Your task to perform on an android device: Open maps Image 0: 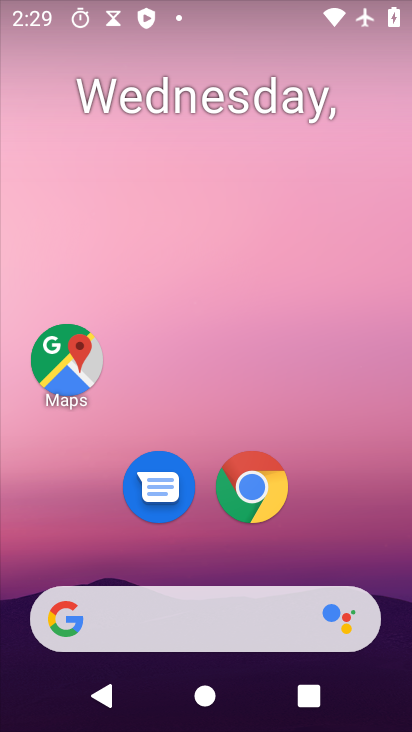
Step 0: drag from (297, 512) to (272, 275)
Your task to perform on an android device: Open maps Image 1: 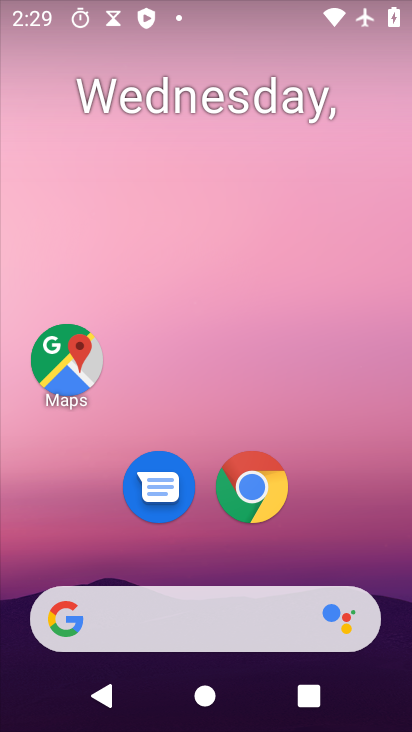
Step 1: drag from (280, 710) to (211, 226)
Your task to perform on an android device: Open maps Image 2: 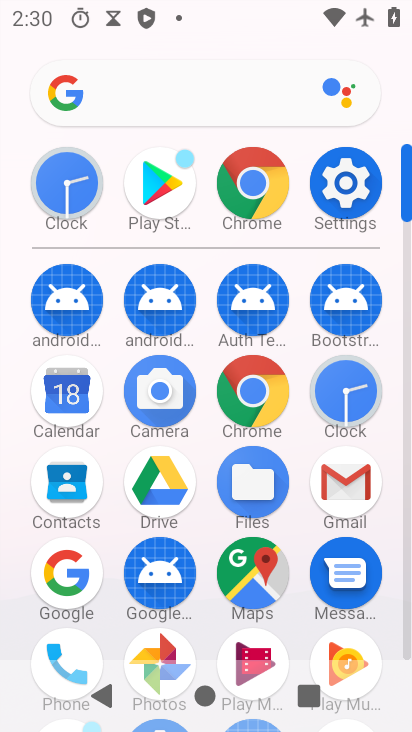
Step 2: click (253, 572)
Your task to perform on an android device: Open maps Image 3: 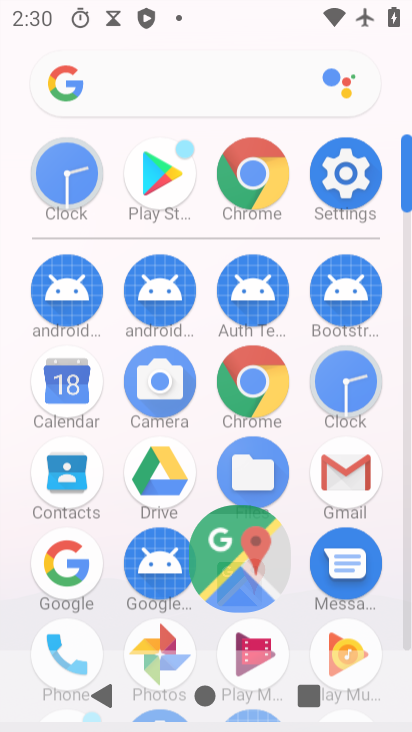
Step 3: click (253, 572)
Your task to perform on an android device: Open maps Image 4: 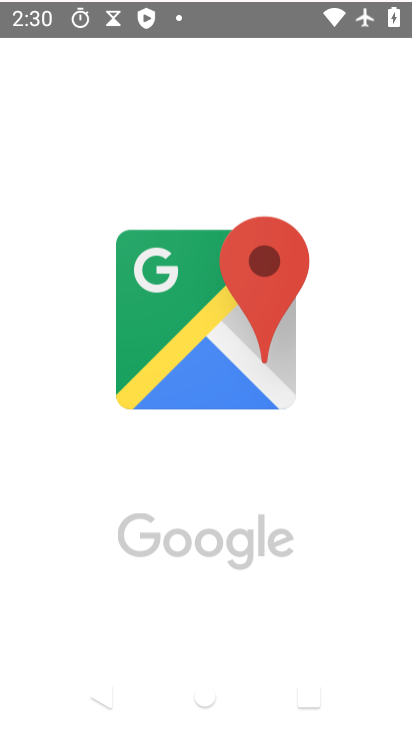
Step 4: click (253, 572)
Your task to perform on an android device: Open maps Image 5: 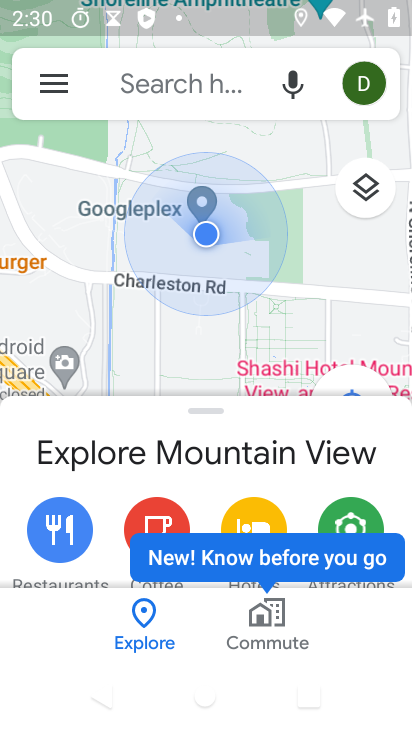
Step 5: task complete